Your task to perform on an android device: toggle priority inbox in the gmail app Image 0: 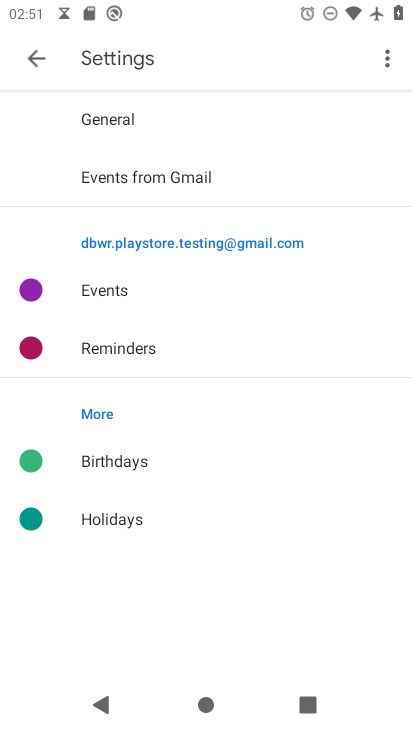
Step 0: press home button
Your task to perform on an android device: toggle priority inbox in the gmail app Image 1: 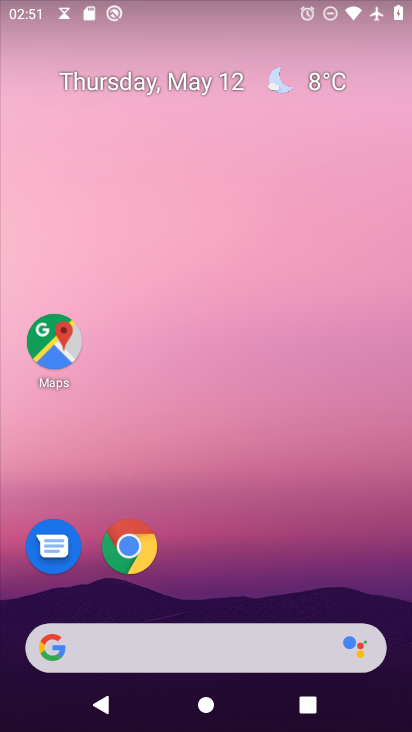
Step 1: drag from (140, 660) to (269, 222)
Your task to perform on an android device: toggle priority inbox in the gmail app Image 2: 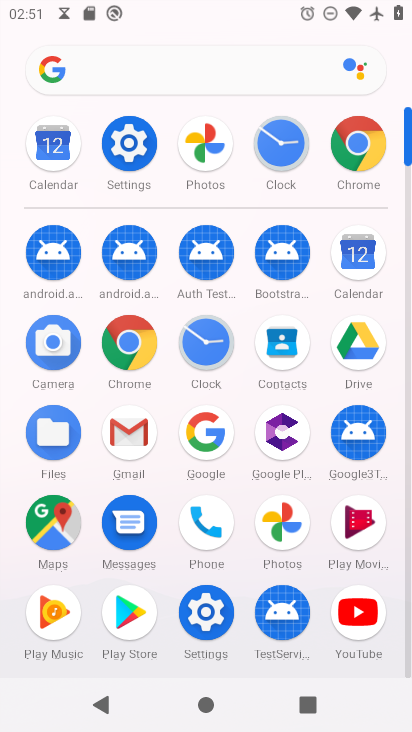
Step 2: click (130, 434)
Your task to perform on an android device: toggle priority inbox in the gmail app Image 3: 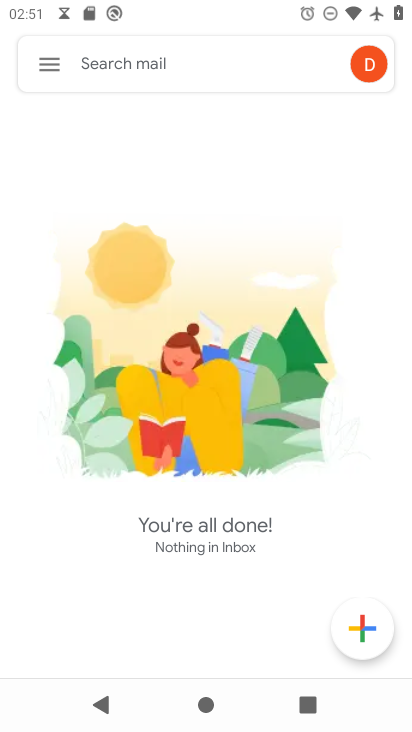
Step 3: click (42, 69)
Your task to perform on an android device: toggle priority inbox in the gmail app Image 4: 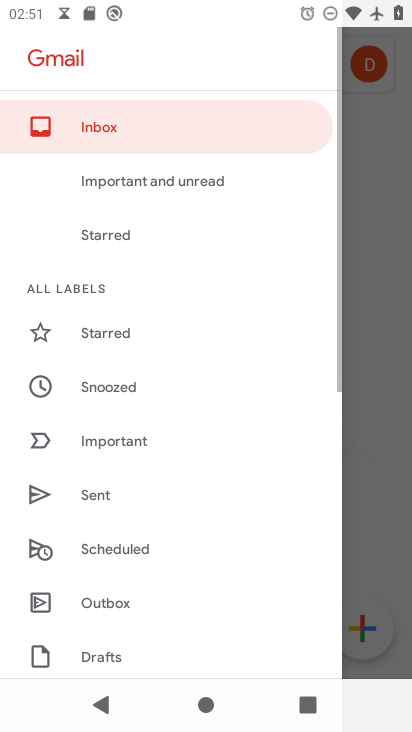
Step 4: drag from (142, 586) to (265, 149)
Your task to perform on an android device: toggle priority inbox in the gmail app Image 5: 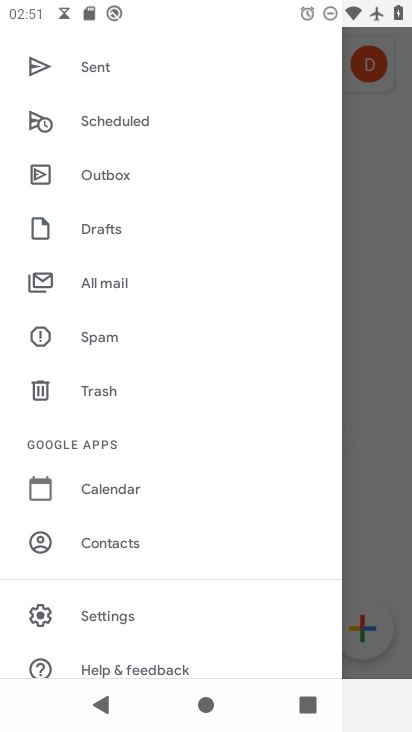
Step 5: click (102, 622)
Your task to perform on an android device: toggle priority inbox in the gmail app Image 6: 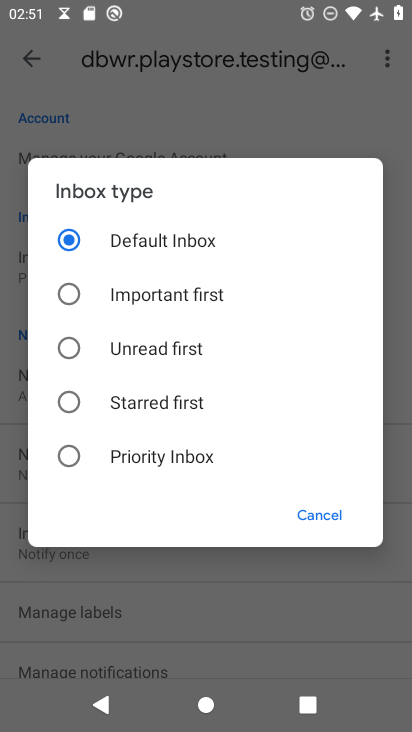
Step 6: click (66, 458)
Your task to perform on an android device: toggle priority inbox in the gmail app Image 7: 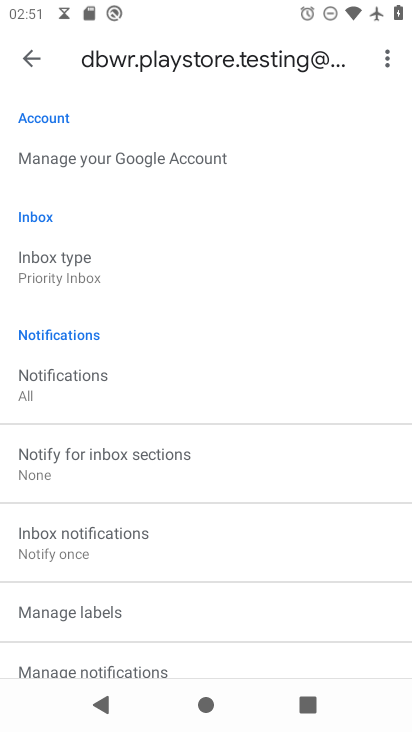
Step 7: task complete